Your task to perform on an android device: snooze an email in the gmail app Image 0: 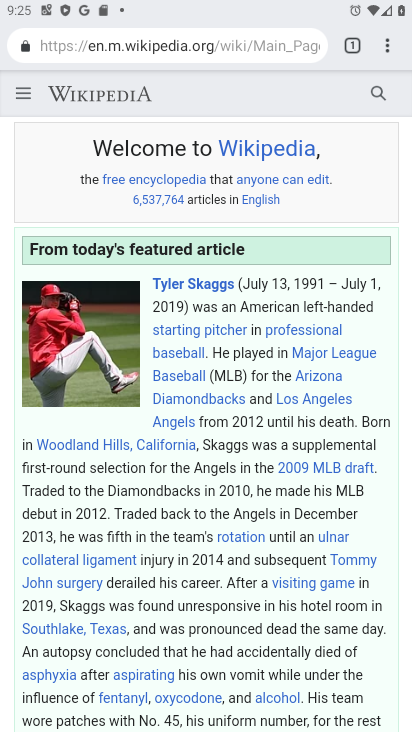
Step 0: press home button
Your task to perform on an android device: snooze an email in the gmail app Image 1: 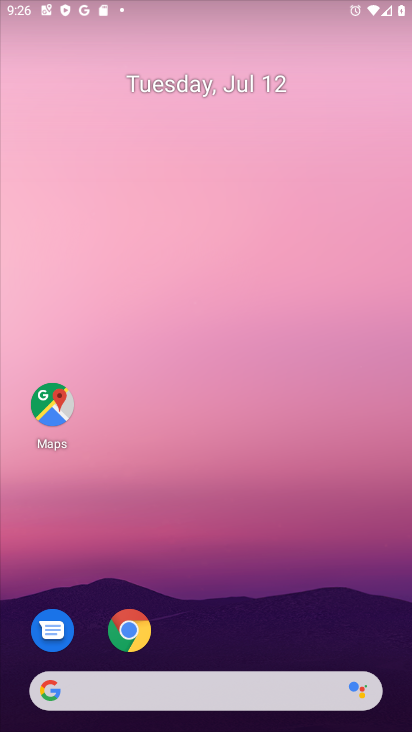
Step 1: drag from (224, 573) to (242, 142)
Your task to perform on an android device: snooze an email in the gmail app Image 2: 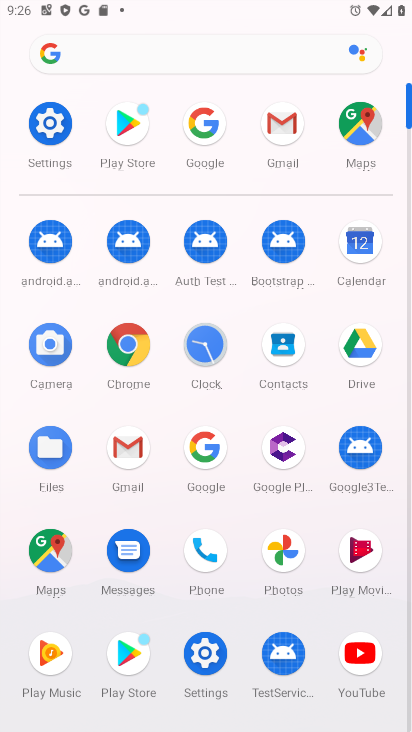
Step 2: click (280, 124)
Your task to perform on an android device: snooze an email in the gmail app Image 3: 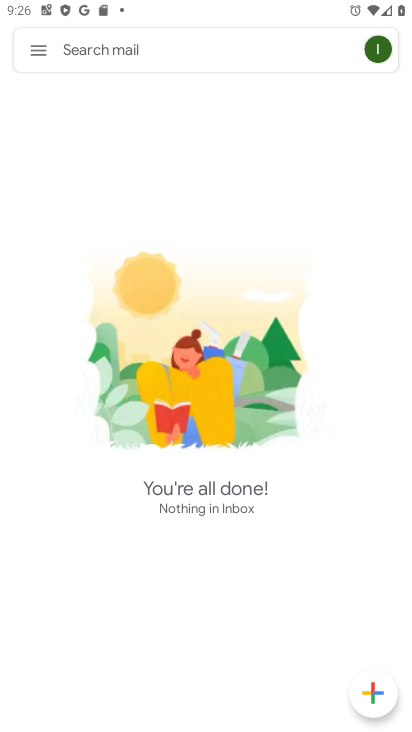
Step 3: click (32, 47)
Your task to perform on an android device: snooze an email in the gmail app Image 4: 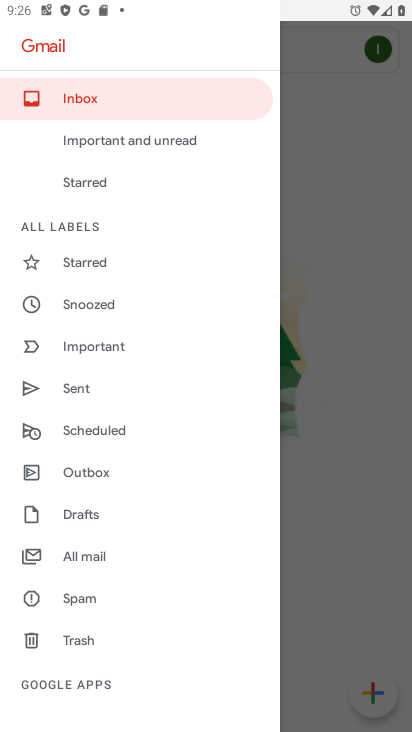
Step 4: click (89, 561)
Your task to perform on an android device: snooze an email in the gmail app Image 5: 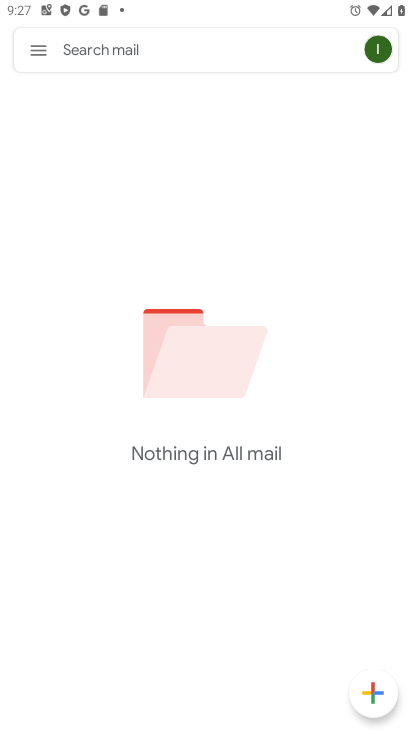
Step 5: task complete